Your task to perform on an android device: Go to wifi settings Image 0: 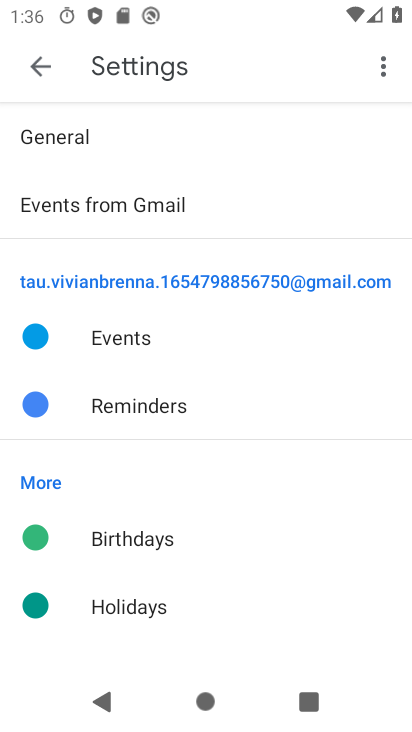
Step 0: press home button
Your task to perform on an android device: Go to wifi settings Image 1: 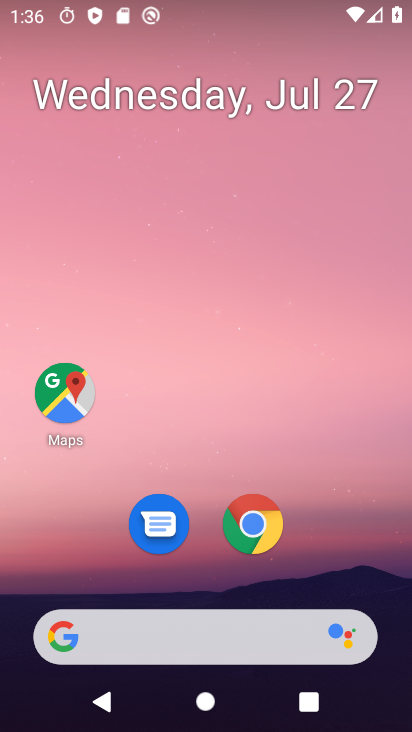
Step 1: drag from (349, 550) to (360, 68)
Your task to perform on an android device: Go to wifi settings Image 2: 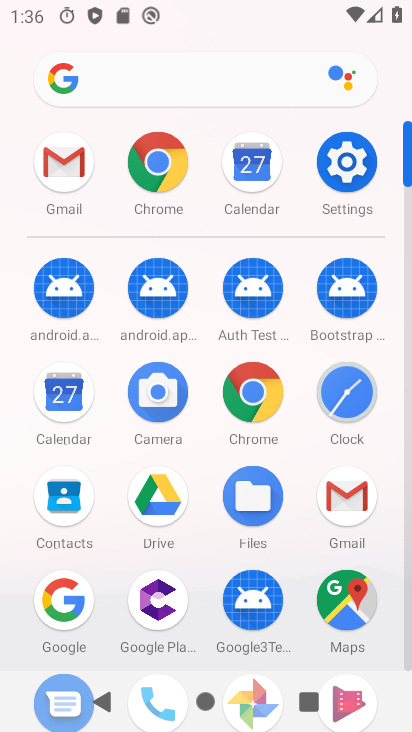
Step 2: click (348, 161)
Your task to perform on an android device: Go to wifi settings Image 3: 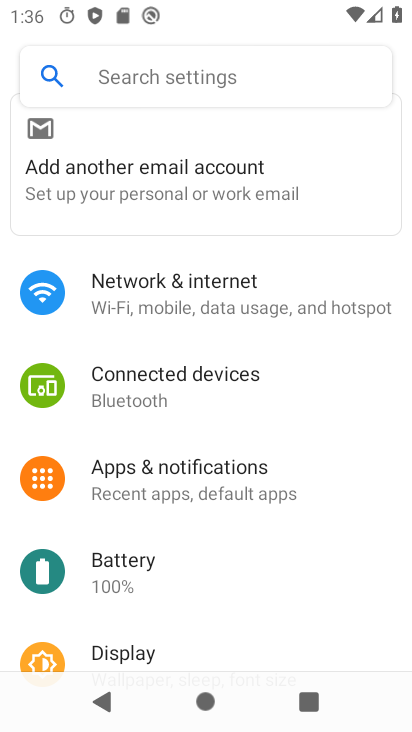
Step 3: click (224, 287)
Your task to perform on an android device: Go to wifi settings Image 4: 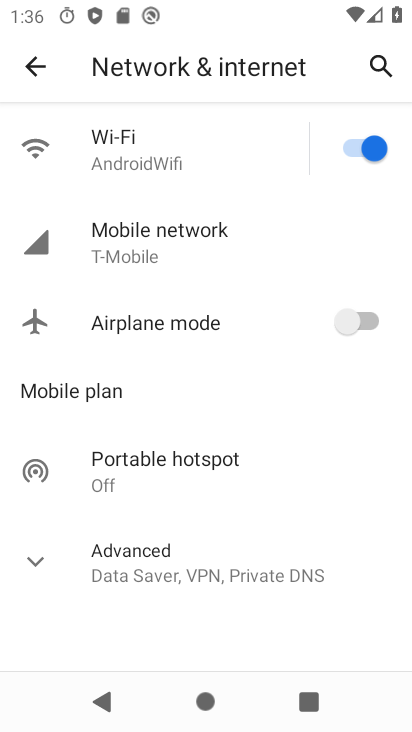
Step 4: task complete